Your task to perform on an android device: Clear all items from cart on amazon. Add razer blade to the cart on amazon Image 0: 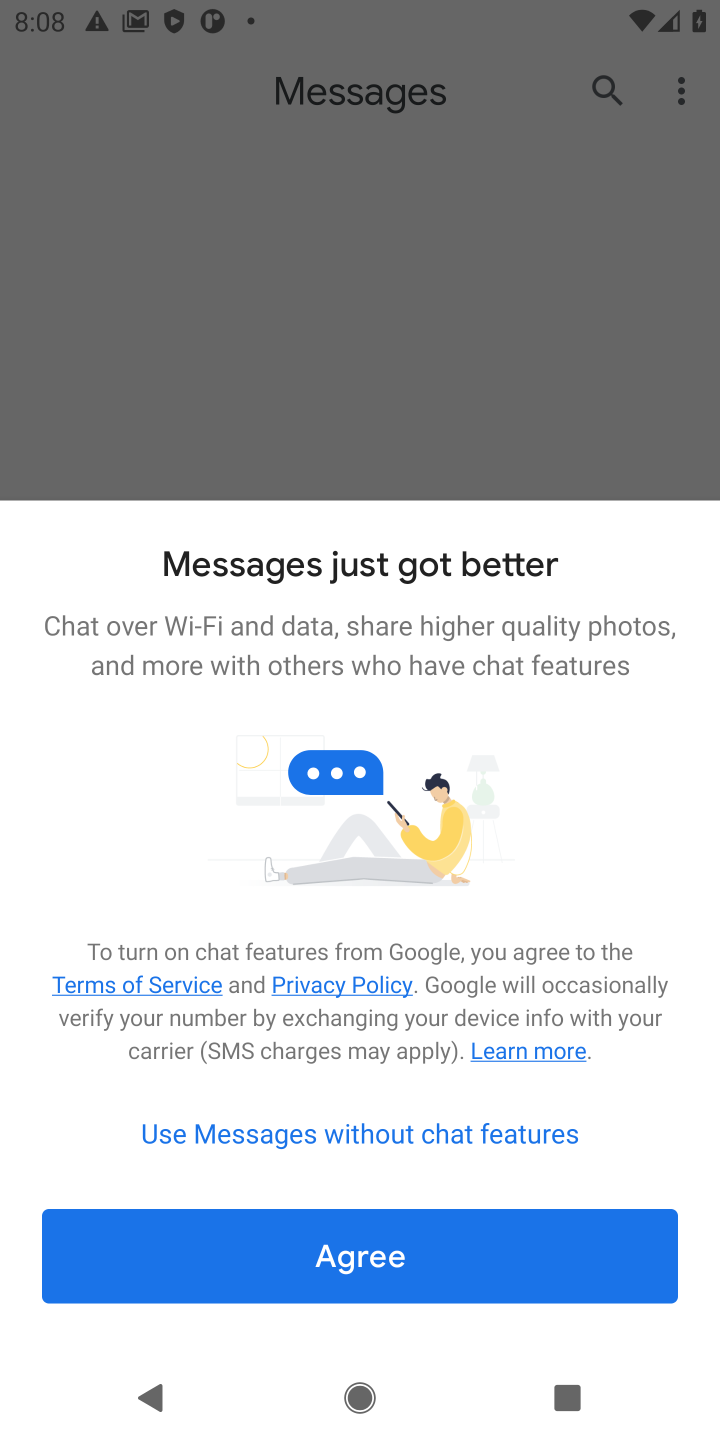
Step 0: press home button
Your task to perform on an android device: Clear all items from cart on amazon. Add razer blade to the cart on amazon Image 1: 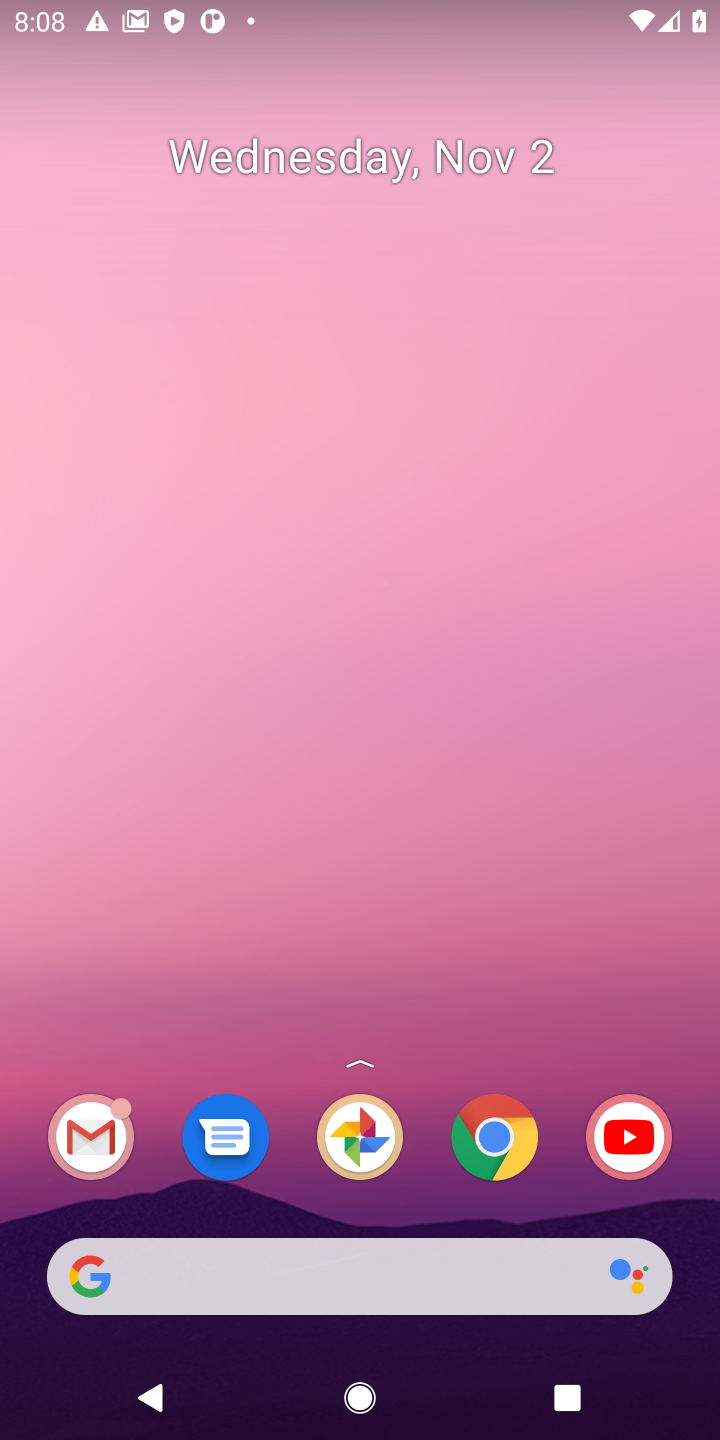
Step 1: click (488, 1134)
Your task to perform on an android device: Clear all items from cart on amazon. Add razer blade to the cart on amazon Image 2: 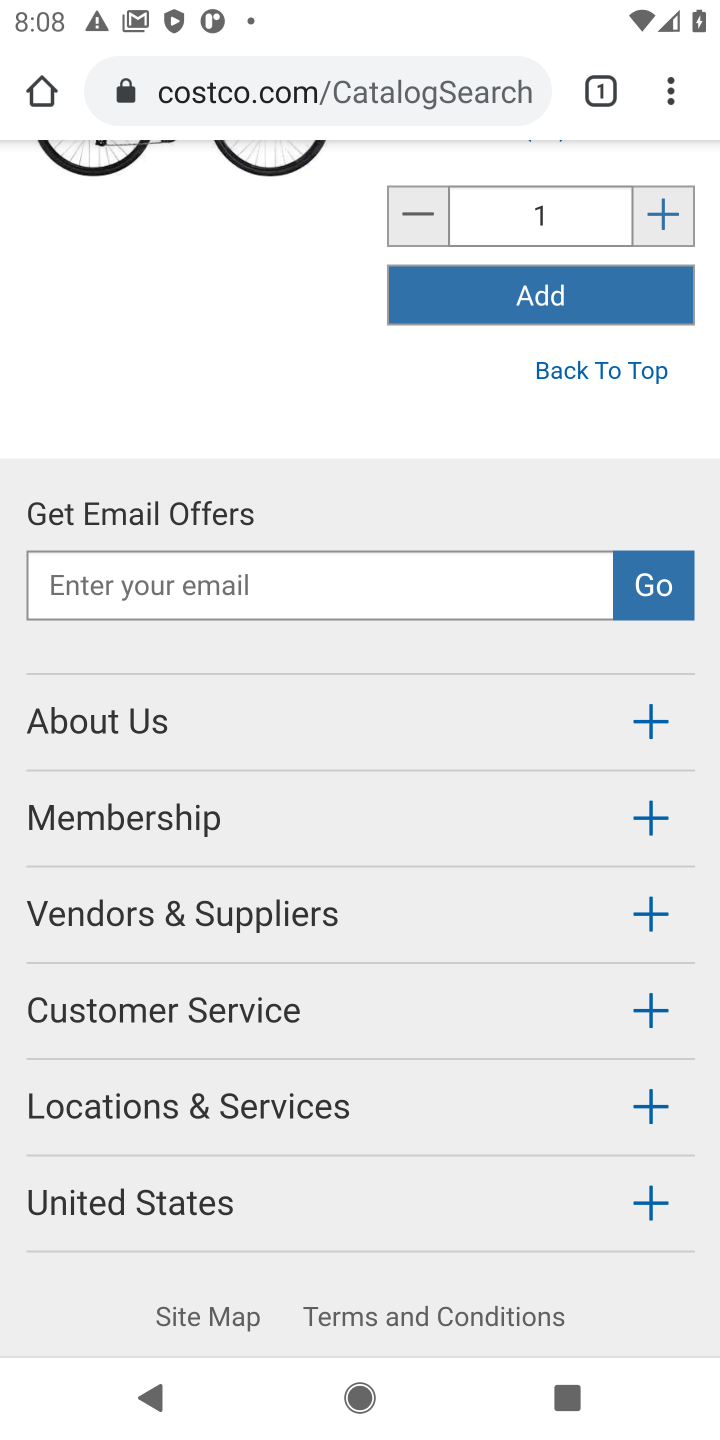
Step 2: click (398, 55)
Your task to perform on an android device: Clear all items from cart on amazon. Add razer blade to the cart on amazon Image 3: 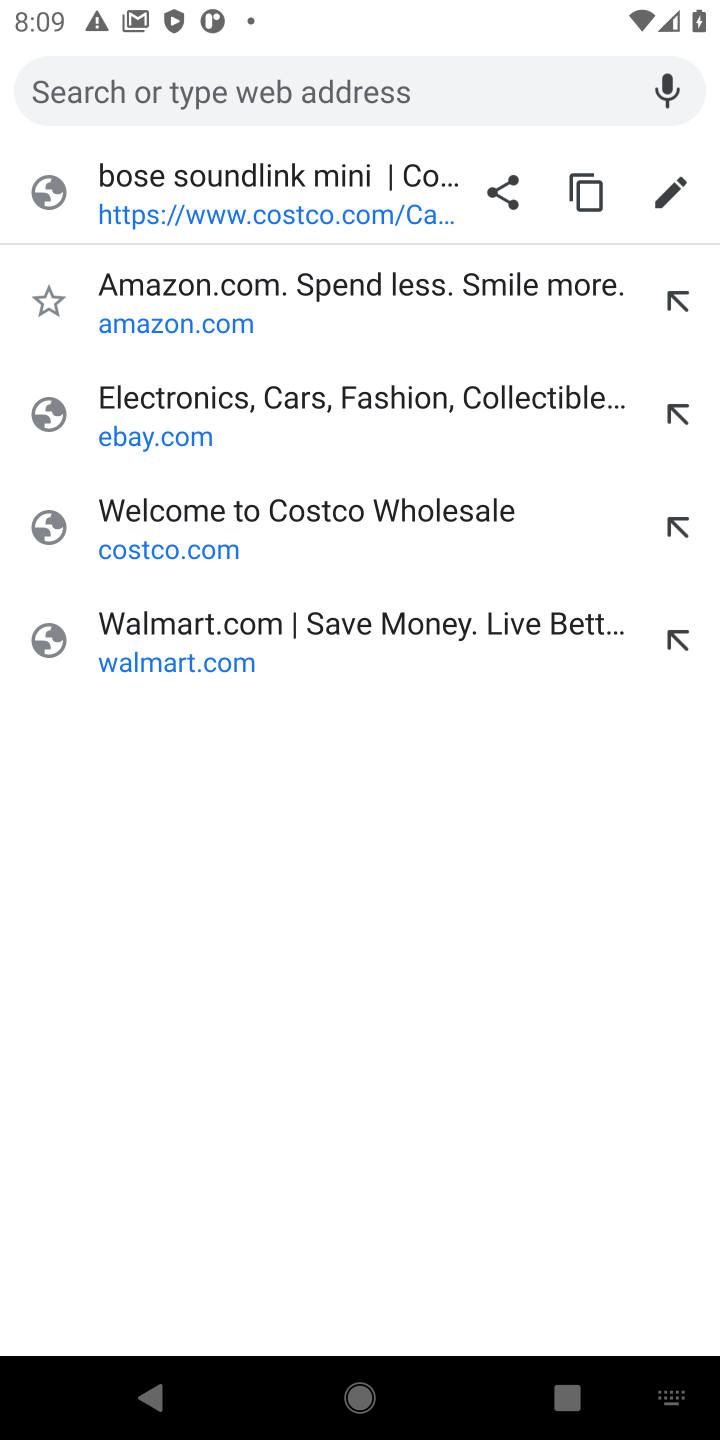
Step 3: type "amazon"
Your task to perform on an android device: Clear all items from cart on amazon. Add razer blade to the cart on amazon Image 4: 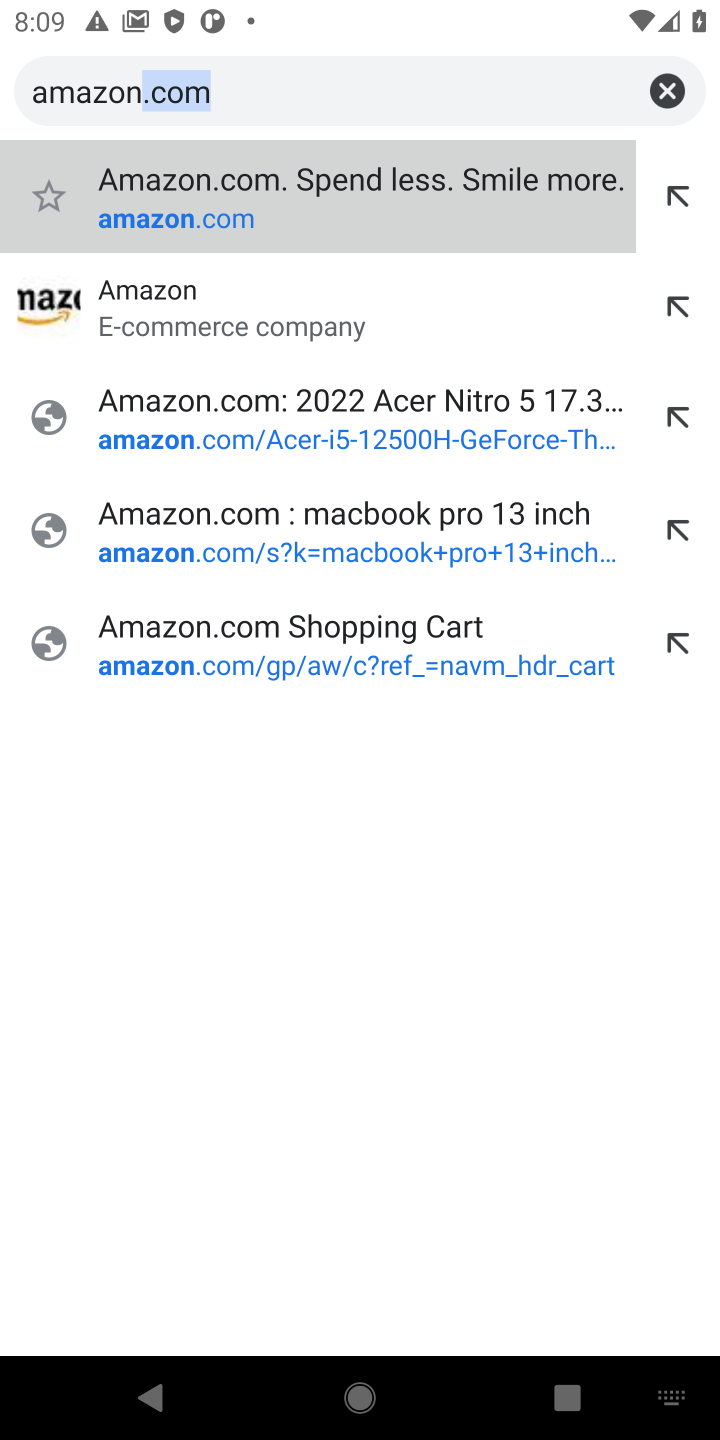
Step 4: click (153, 177)
Your task to perform on an android device: Clear all items from cart on amazon. Add razer blade to the cart on amazon Image 5: 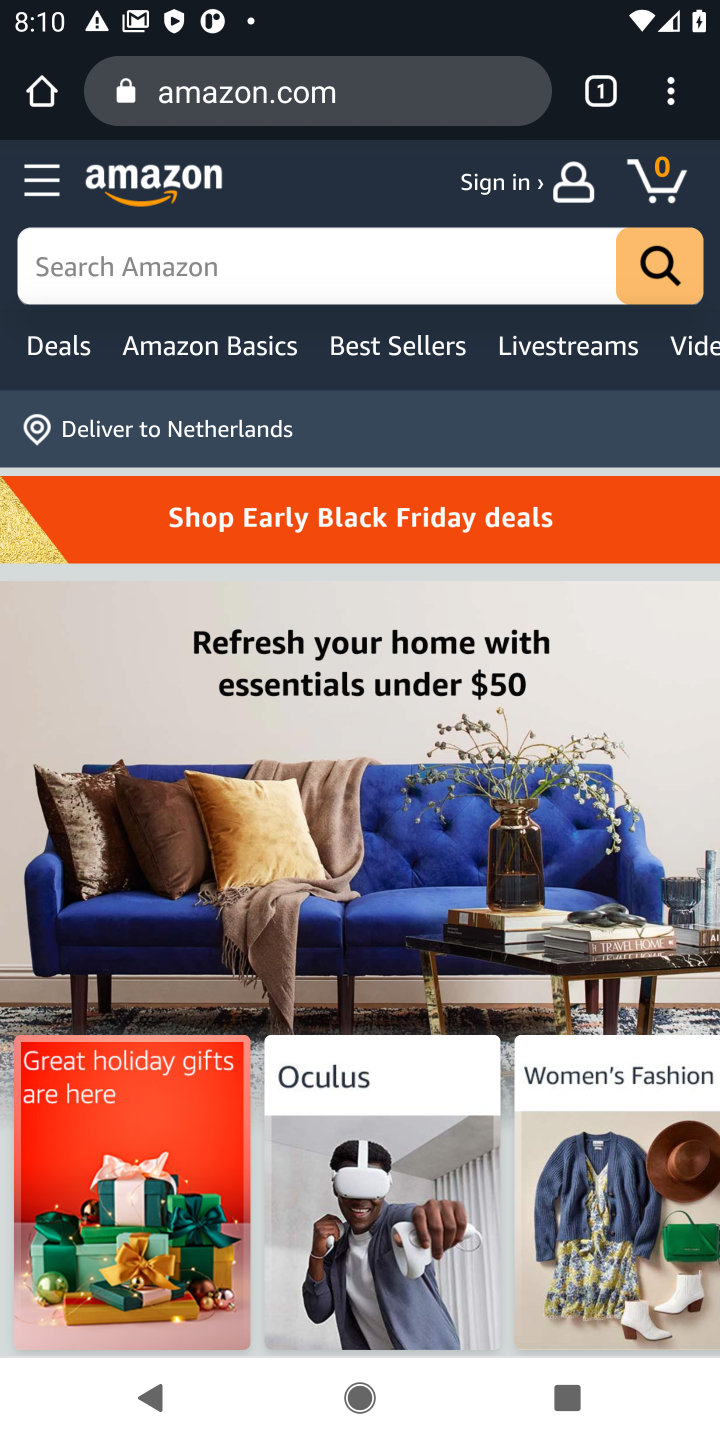
Step 5: click (658, 164)
Your task to perform on an android device: Clear all items from cart on amazon. Add razer blade to the cart on amazon Image 6: 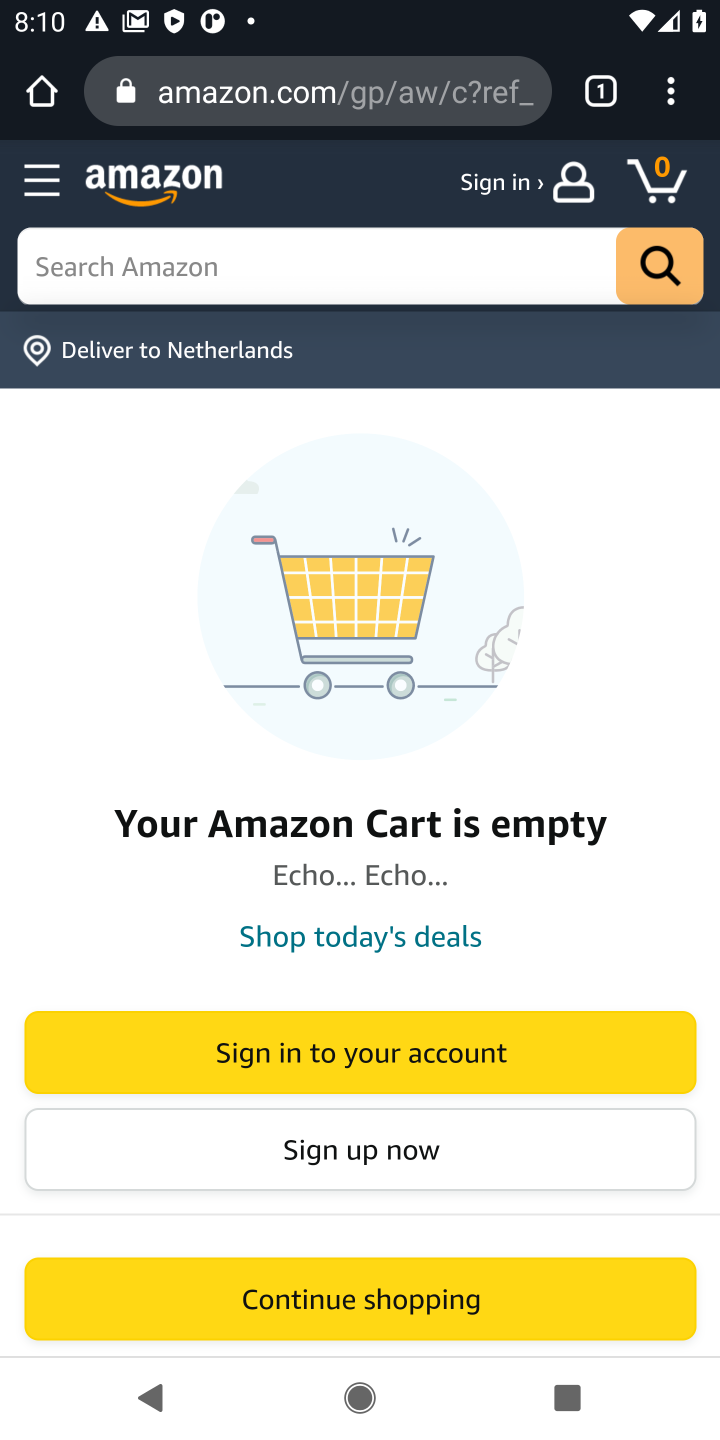
Step 6: click (144, 250)
Your task to perform on an android device: Clear all items from cart on amazon. Add razer blade to the cart on amazon Image 7: 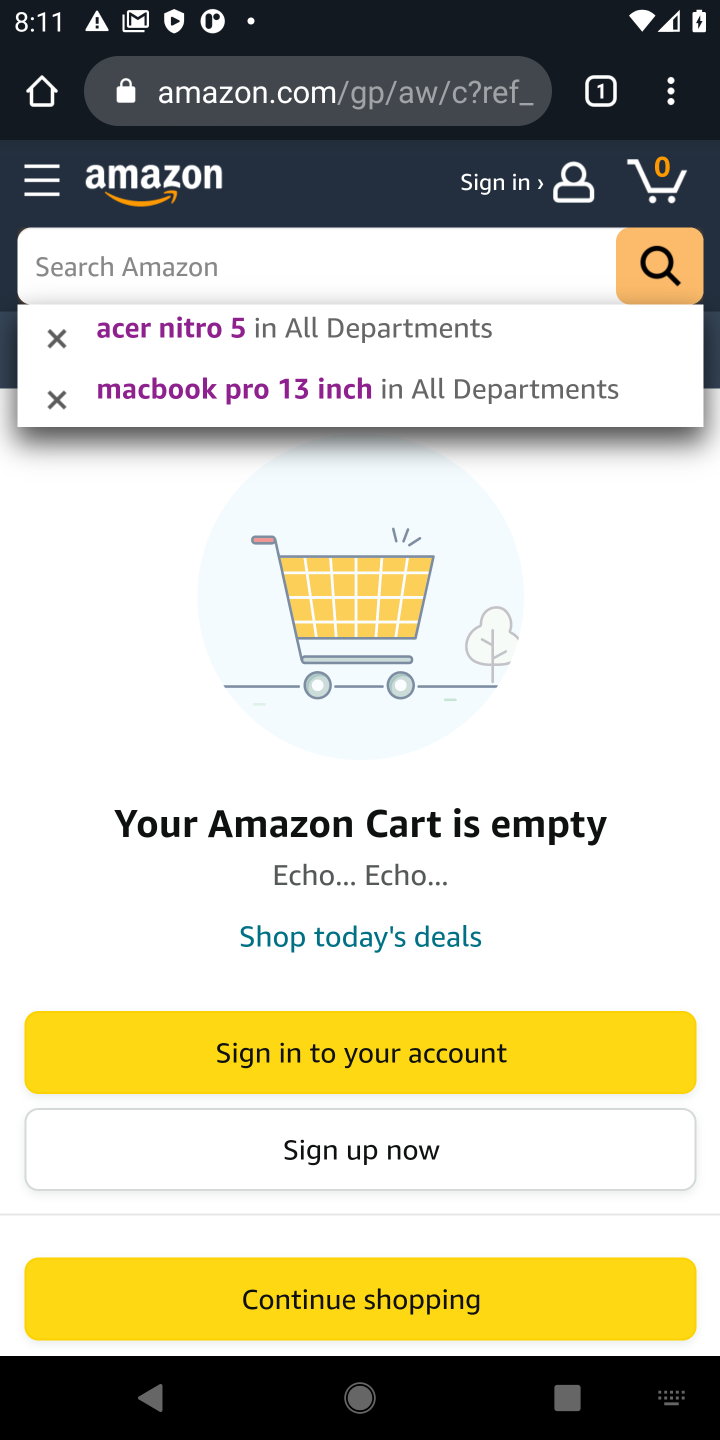
Step 7: type "razer blade"
Your task to perform on an android device: Clear all items from cart on amazon. Add razer blade to the cart on amazon Image 8: 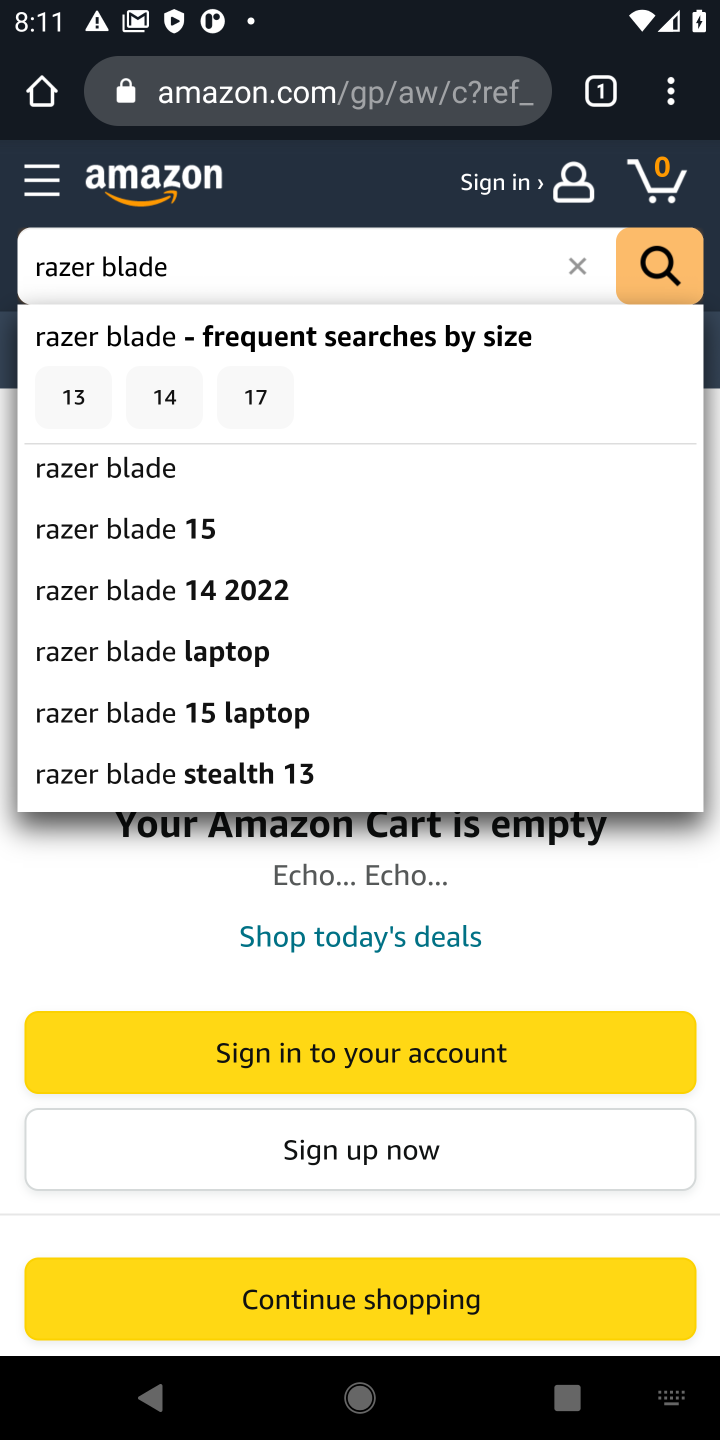
Step 8: click (120, 458)
Your task to perform on an android device: Clear all items from cart on amazon. Add razer blade to the cart on amazon Image 9: 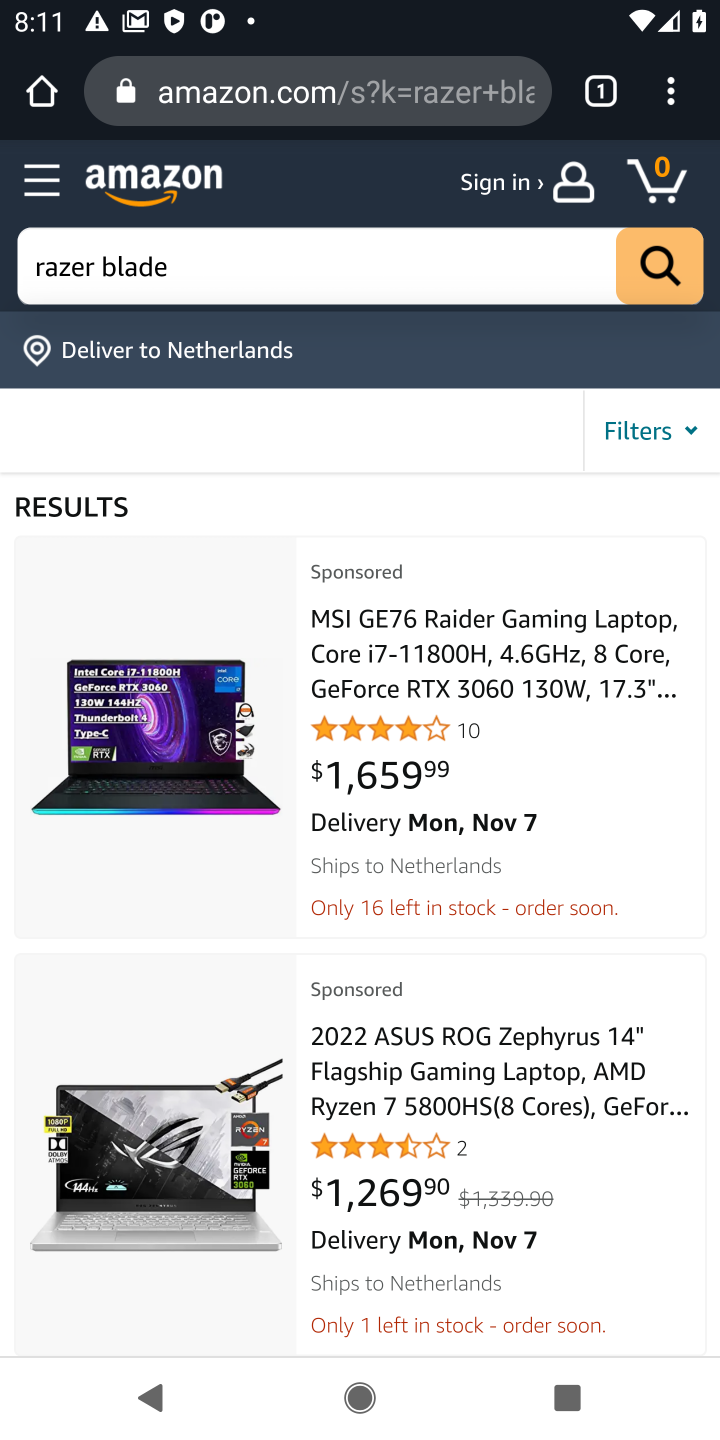
Step 9: drag from (565, 935) to (552, 604)
Your task to perform on an android device: Clear all items from cart on amazon. Add razer blade to the cart on amazon Image 10: 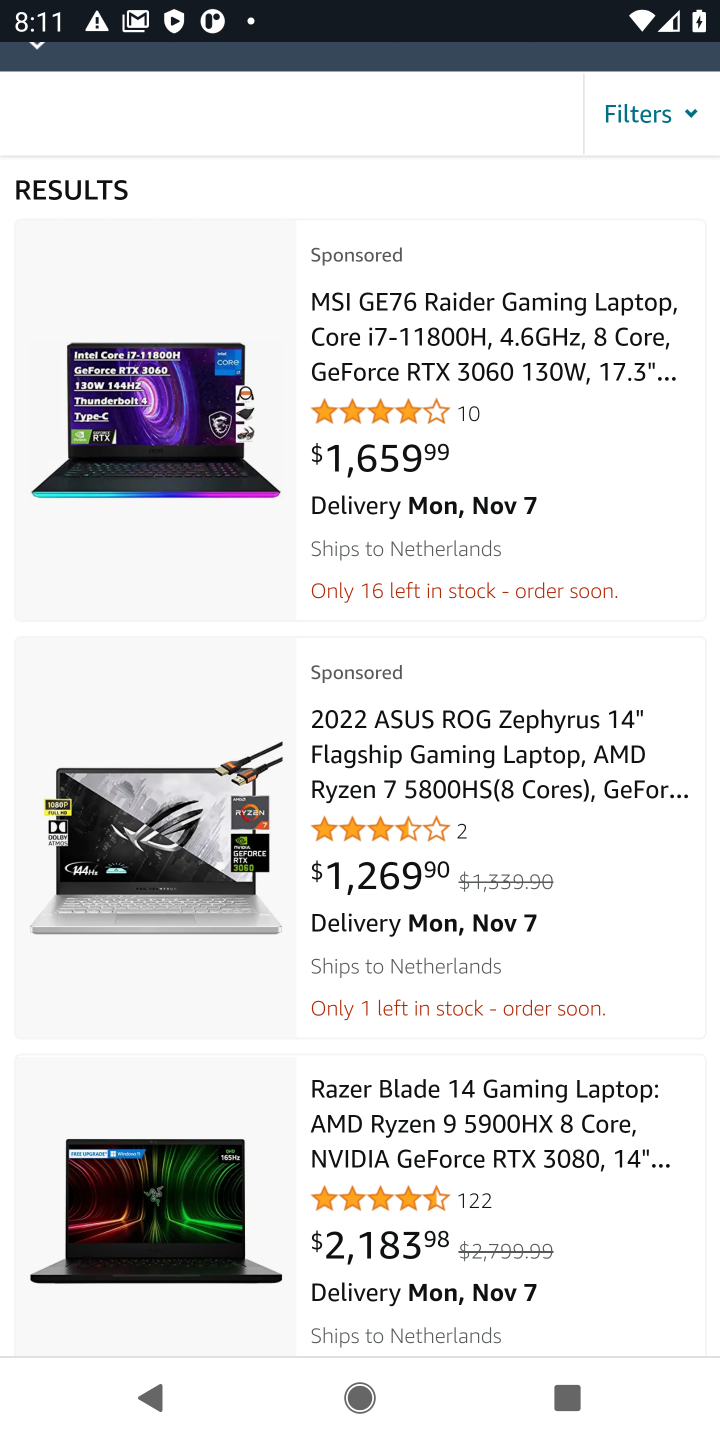
Step 10: click (388, 1106)
Your task to perform on an android device: Clear all items from cart on amazon. Add razer blade to the cart on amazon Image 11: 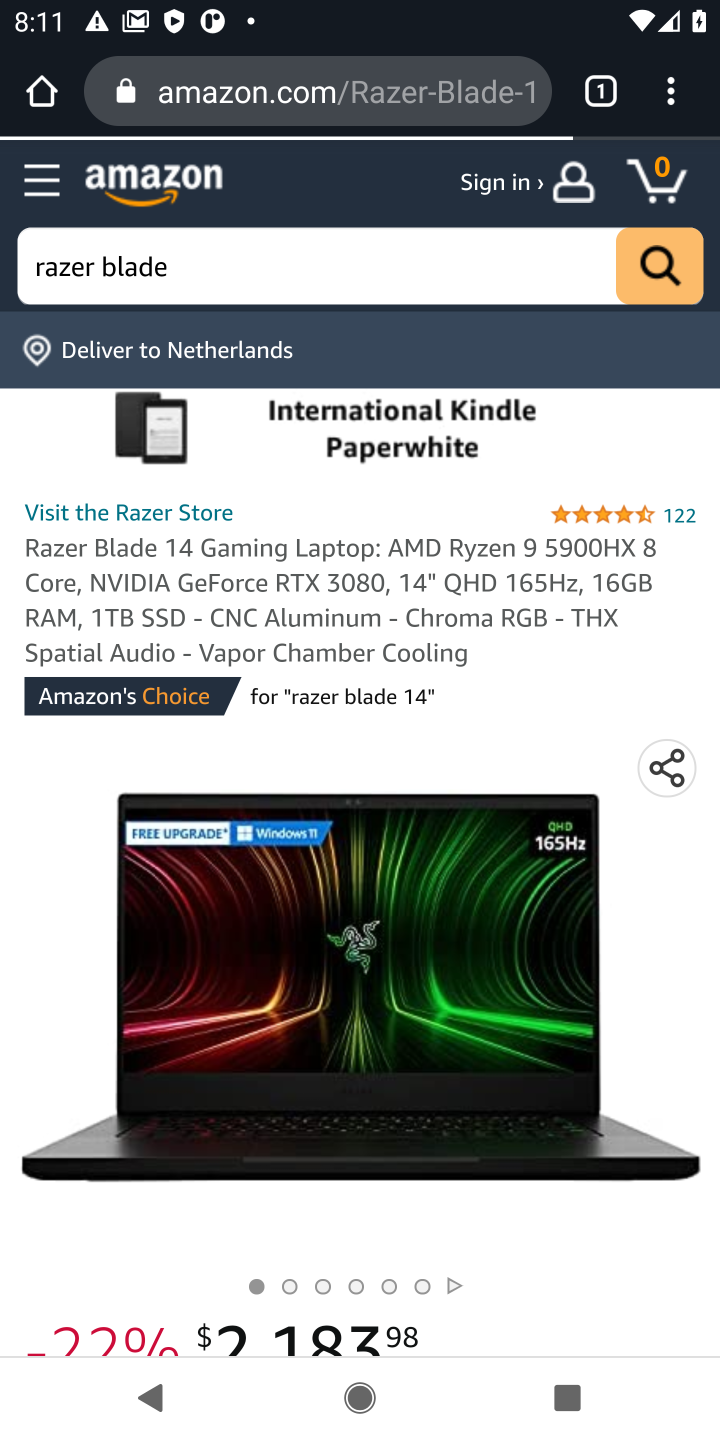
Step 11: drag from (581, 983) to (519, 485)
Your task to perform on an android device: Clear all items from cart on amazon. Add razer blade to the cart on amazon Image 12: 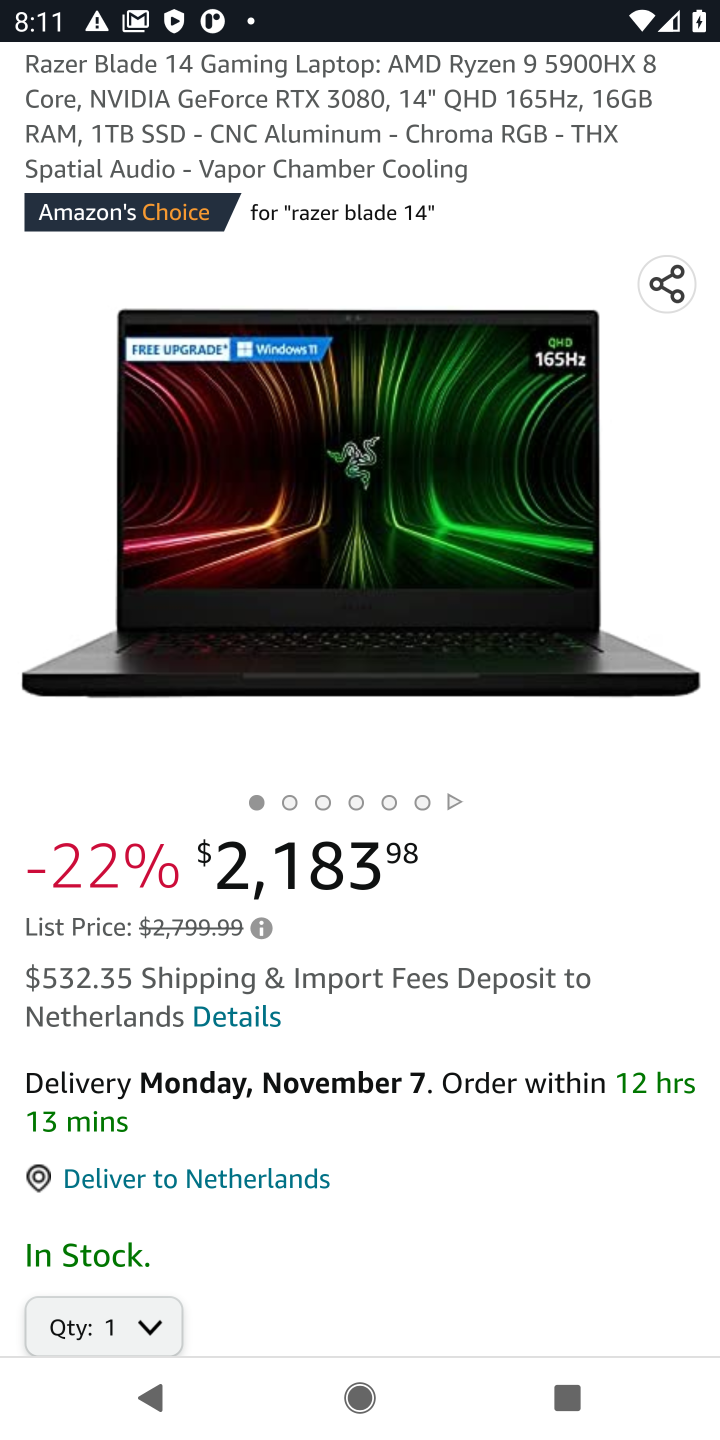
Step 12: drag from (501, 1187) to (478, 529)
Your task to perform on an android device: Clear all items from cart on amazon. Add razer blade to the cart on amazon Image 13: 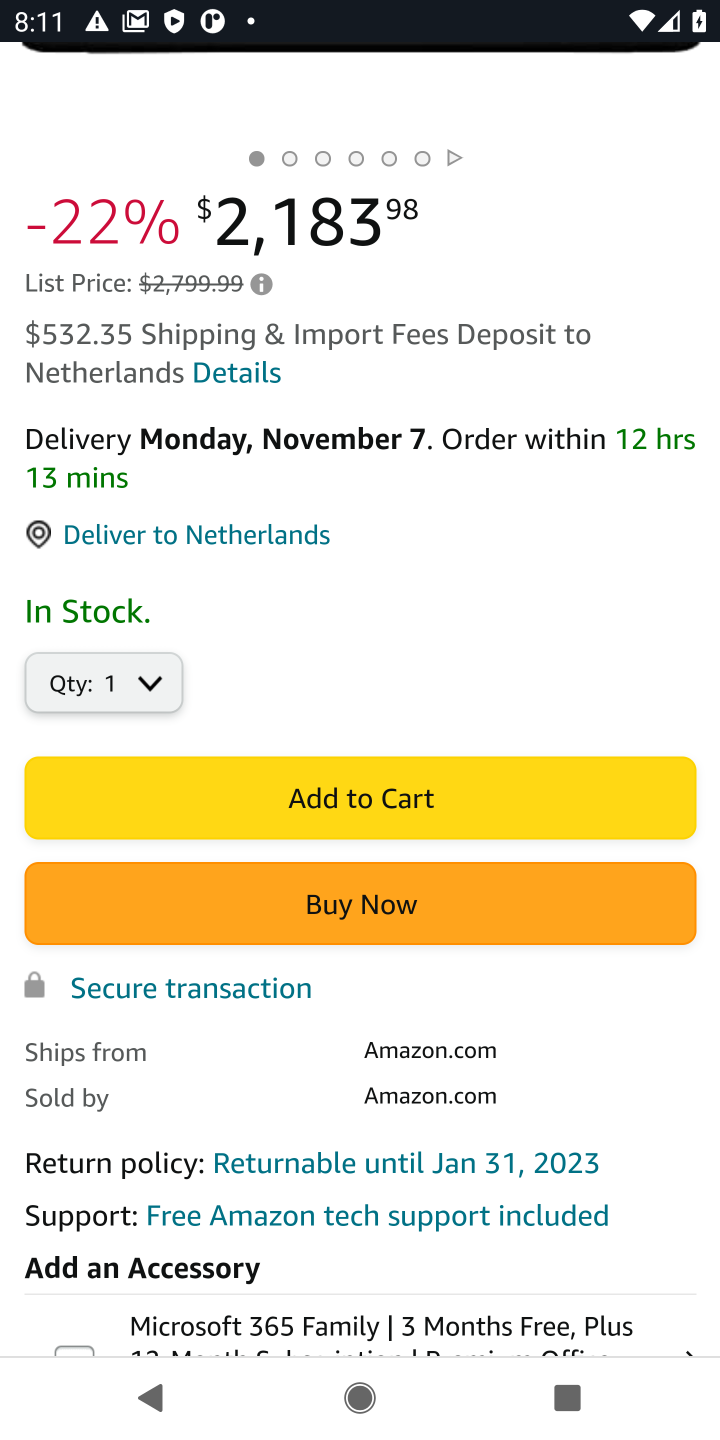
Step 13: click (340, 790)
Your task to perform on an android device: Clear all items from cart on amazon. Add razer blade to the cart on amazon Image 14: 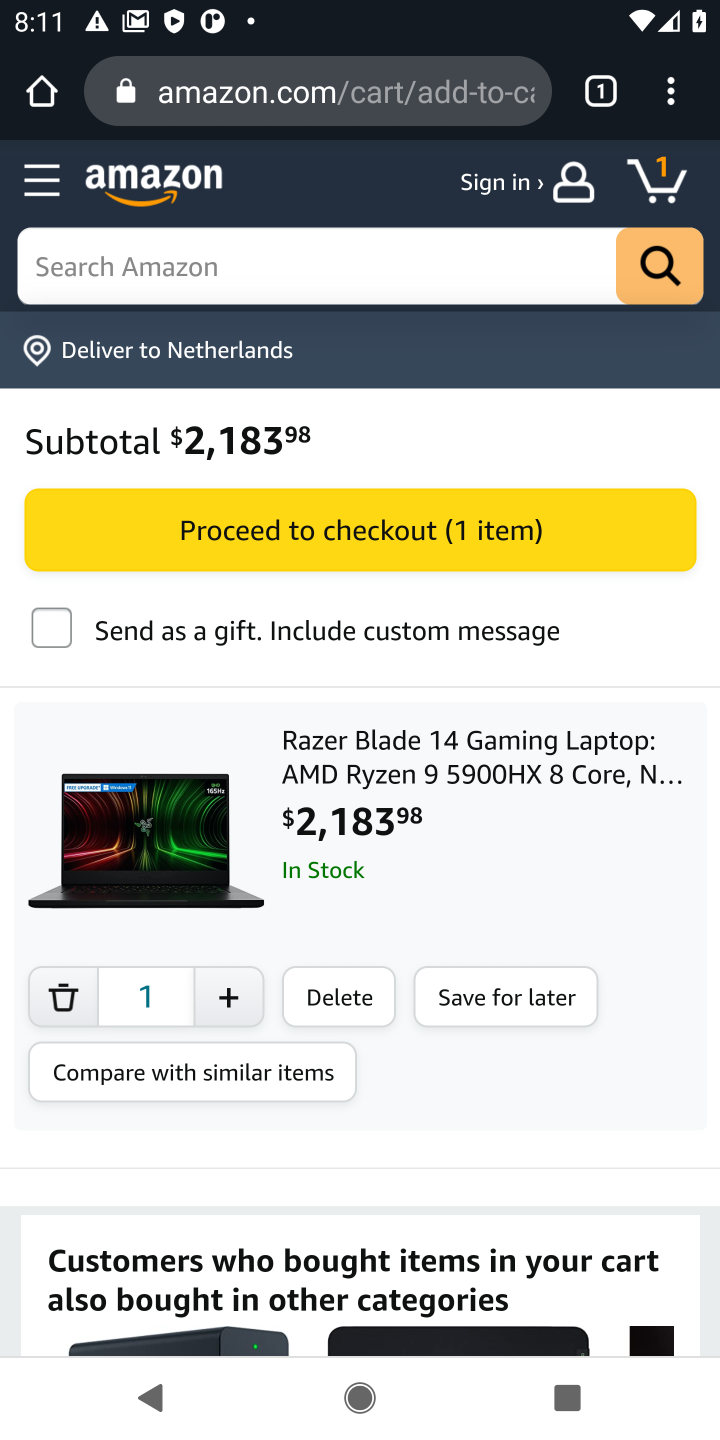
Step 14: task complete